Your task to perform on an android device: Open settings Image 0: 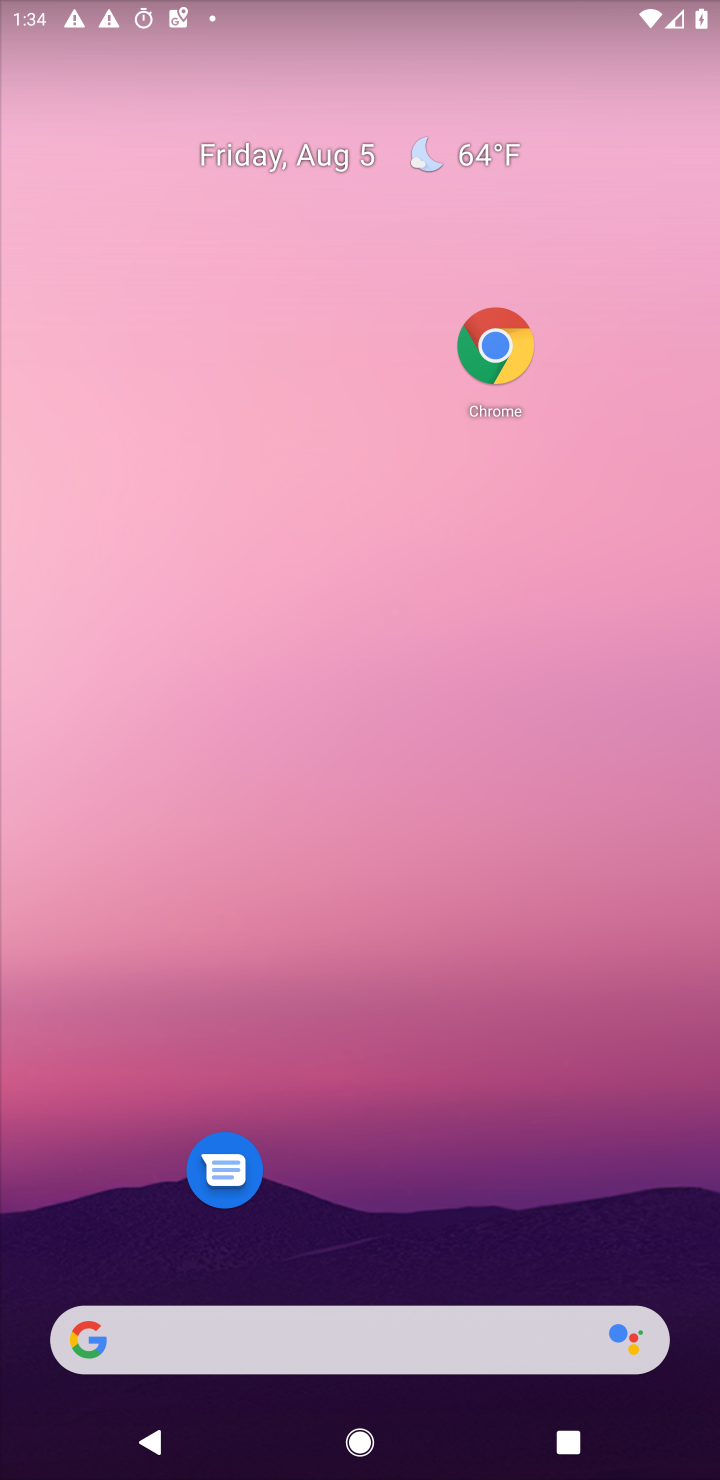
Step 0: drag from (407, 1050) to (351, 100)
Your task to perform on an android device: Open settings Image 1: 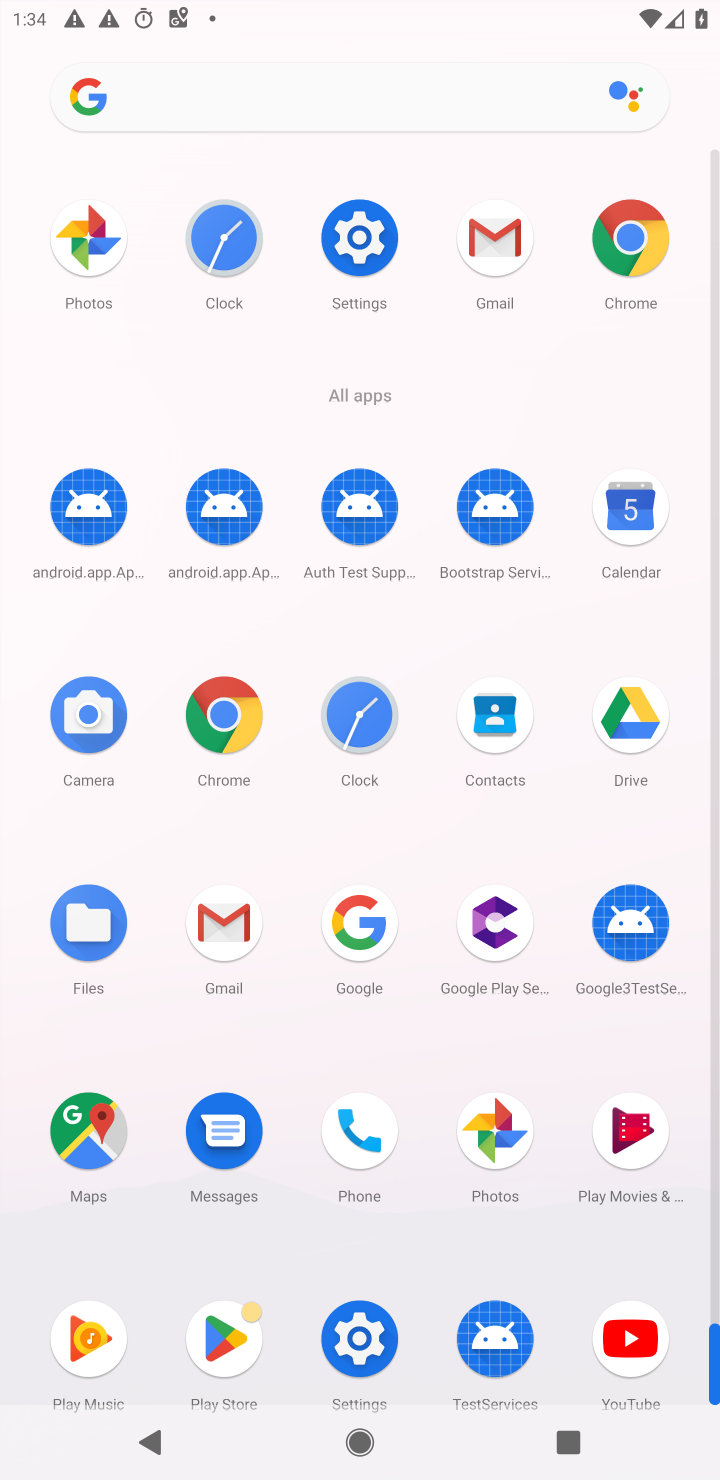
Step 1: click (370, 1342)
Your task to perform on an android device: Open settings Image 2: 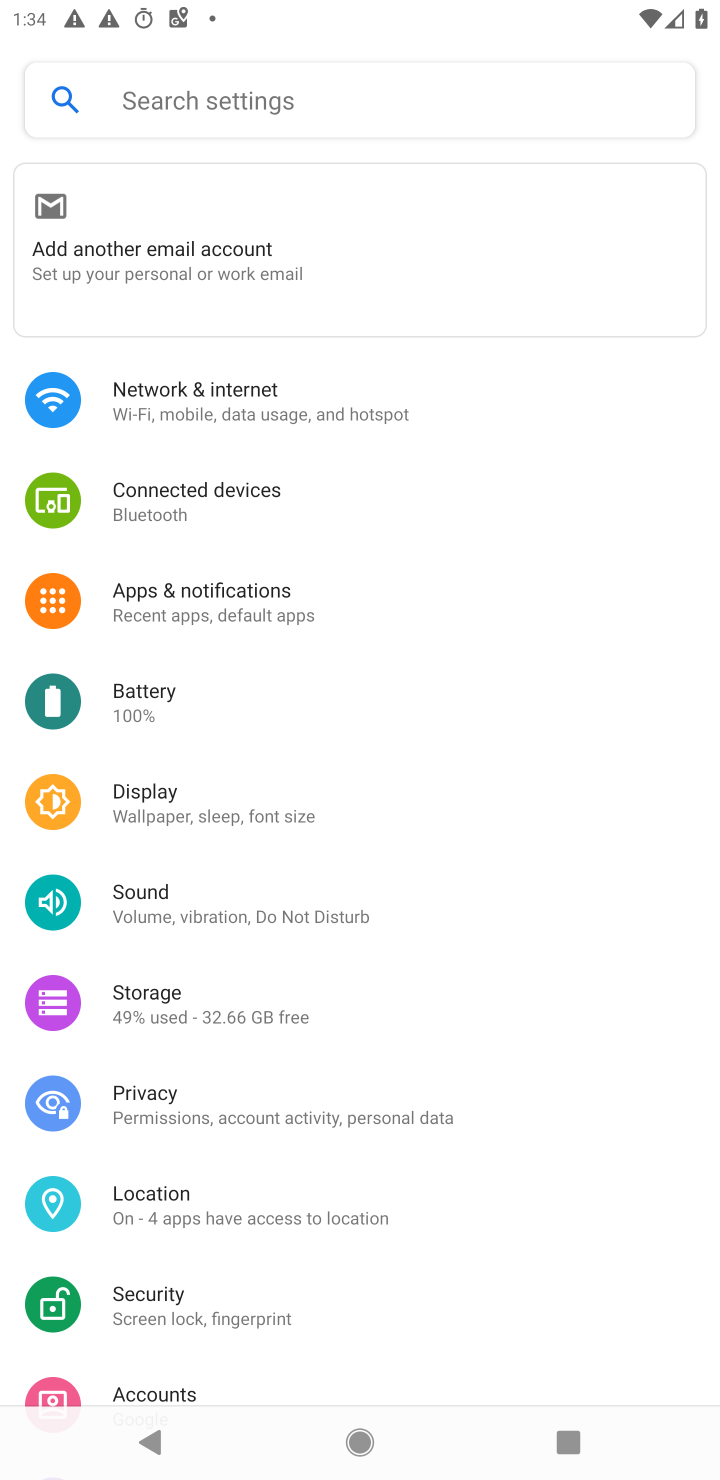
Step 2: task complete